Your task to perform on an android device: open sync settings in chrome Image 0: 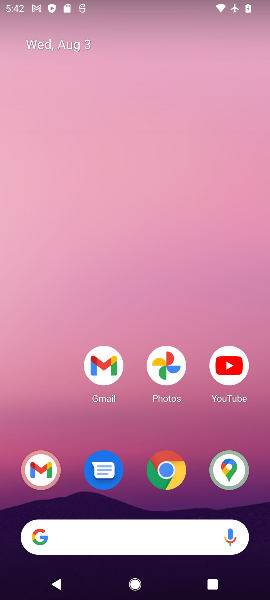
Step 0: drag from (61, 406) to (131, 39)
Your task to perform on an android device: open sync settings in chrome Image 1: 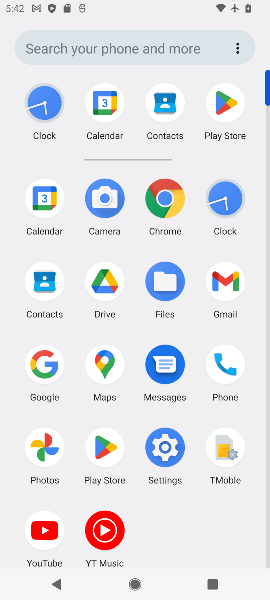
Step 1: click (165, 195)
Your task to perform on an android device: open sync settings in chrome Image 2: 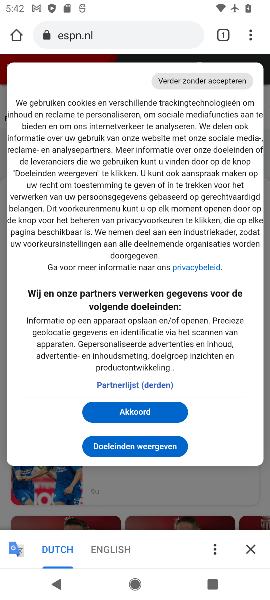
Step 2: drag from (249, 26) to (149, 488)
Your task to perform on an android device: open sync settings in chrome Image 3: 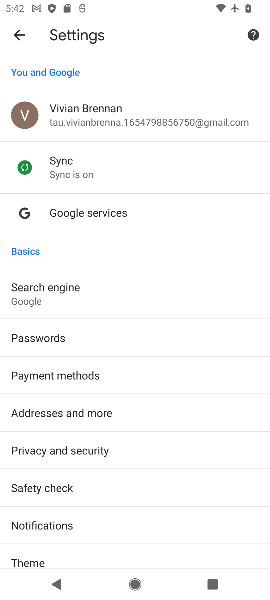
Step 3: click (95, 175)
Your task to perform on an android device: open sync settings in chrome Image 4: 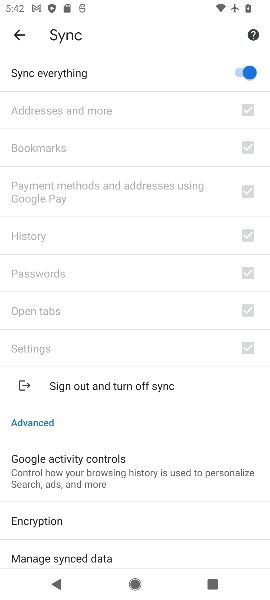
Step 4: task complete